Your task to perform on an android device: Search for Italian restaurants on Maps Image 0: 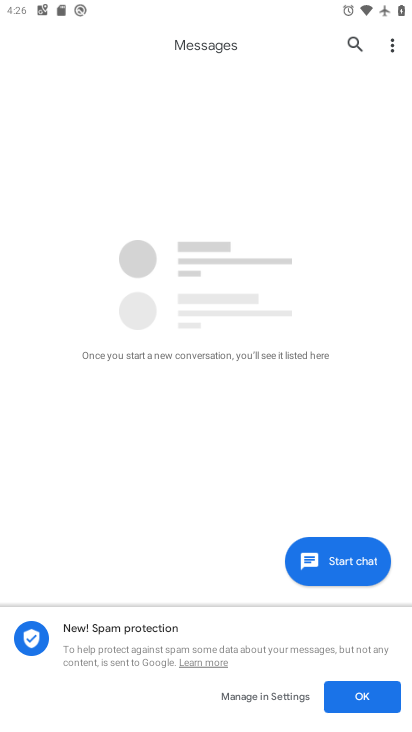
Step 0: press home button
Your task to perform on an android device: Search for Italian restaurants on Maps Image 1: 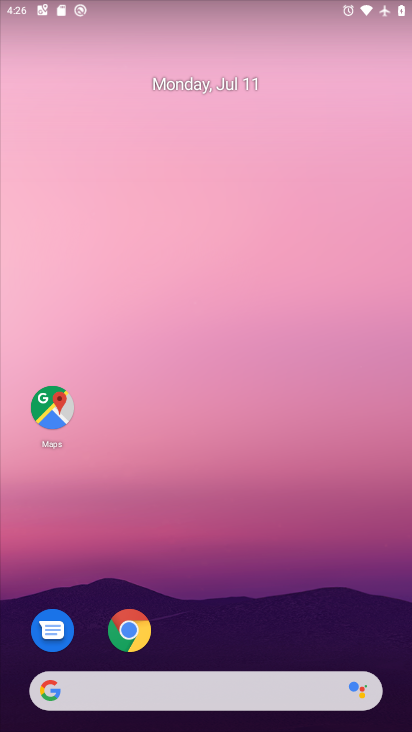
Step 1: click (74, 402)
Your task to perform on an android device: Search for Italian restaurants on Maps Image 2: 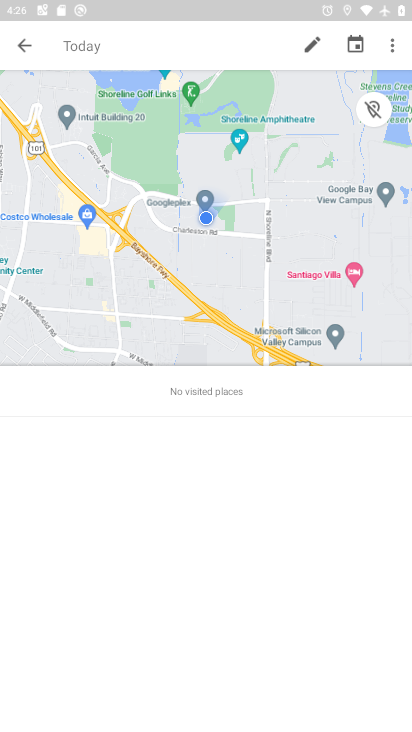
Step 2: click (10, 53)
Your task to perform on an android device: Search for Italian restaurants on Maps Image 3: 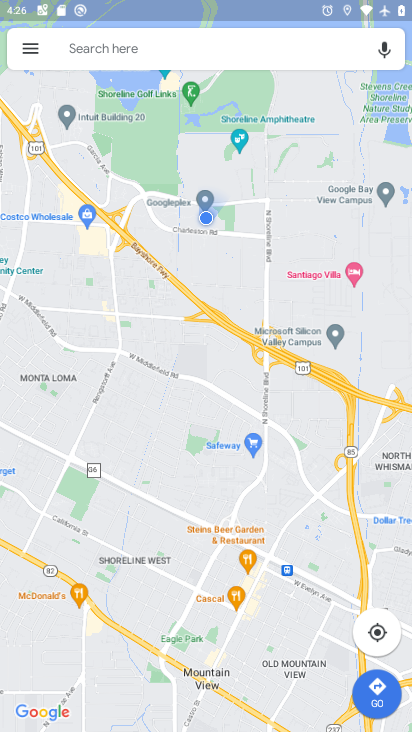
Step 3: click (10, 53)
Your task to perform on an android device: Search for Italian restaurants on Maps Image 4: 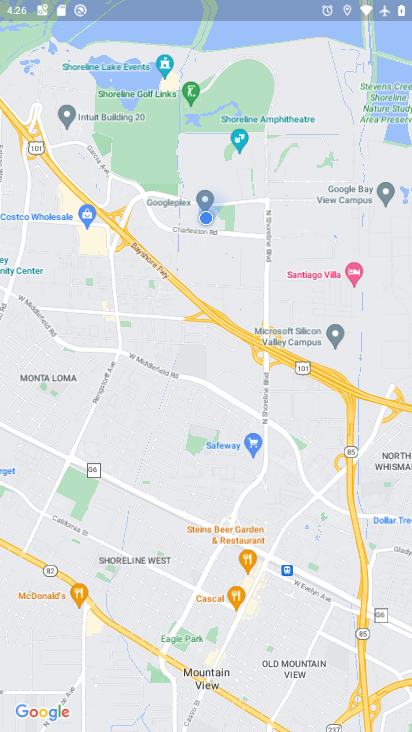
Step 4: task complete